Your task to perform on an android device: Go to display settings Image 0: 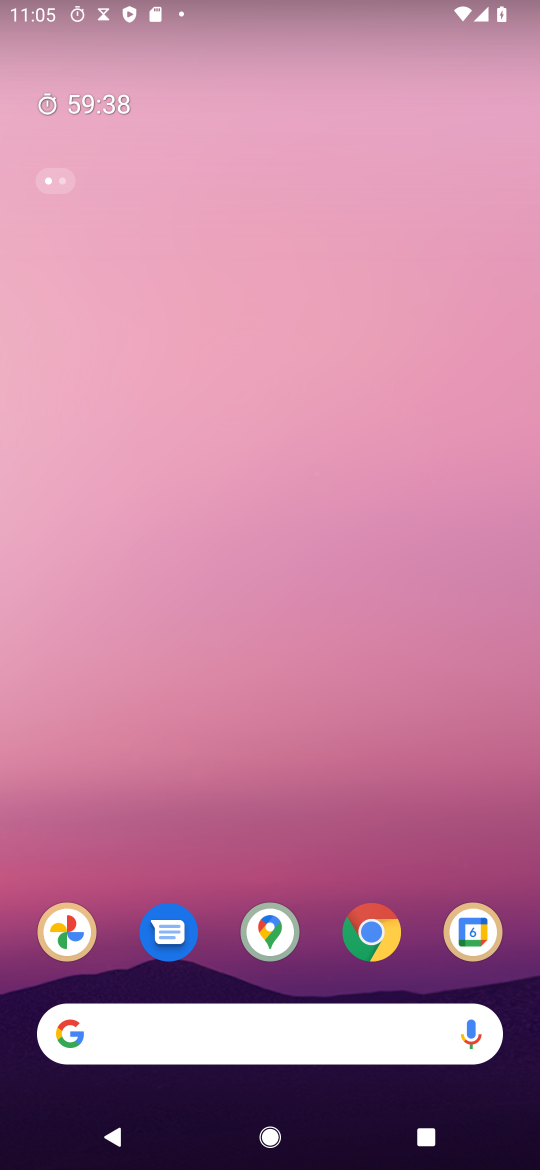
Step 0: drag from (350, 836) to (299, 34)
Your task to perform on an android device: Go to display settings Image 1: 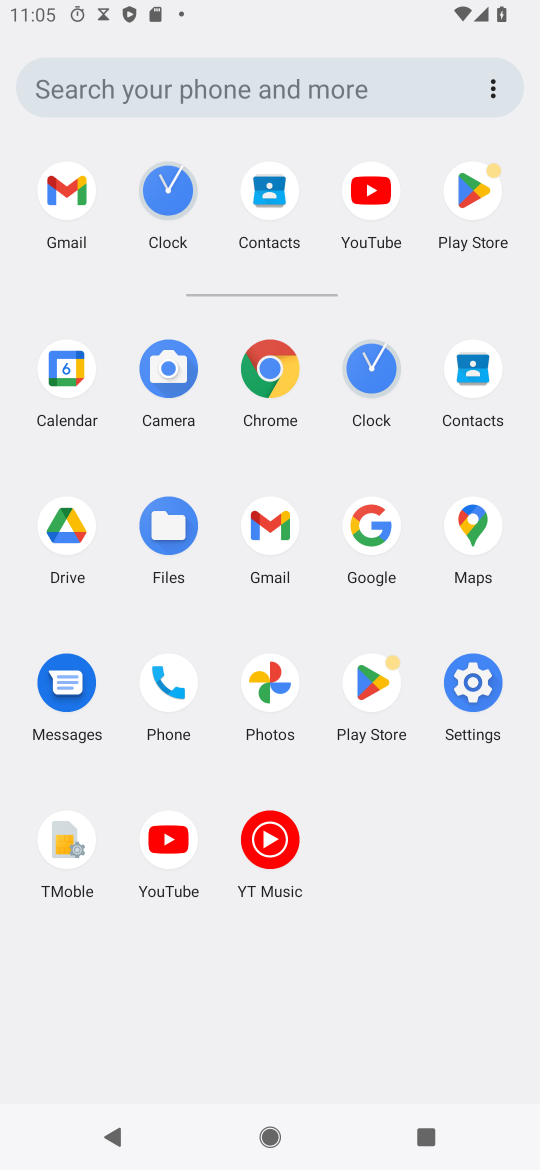
Step 1: click (480, 699)
Your task to perform on an android device: Go to display settings Image 2: 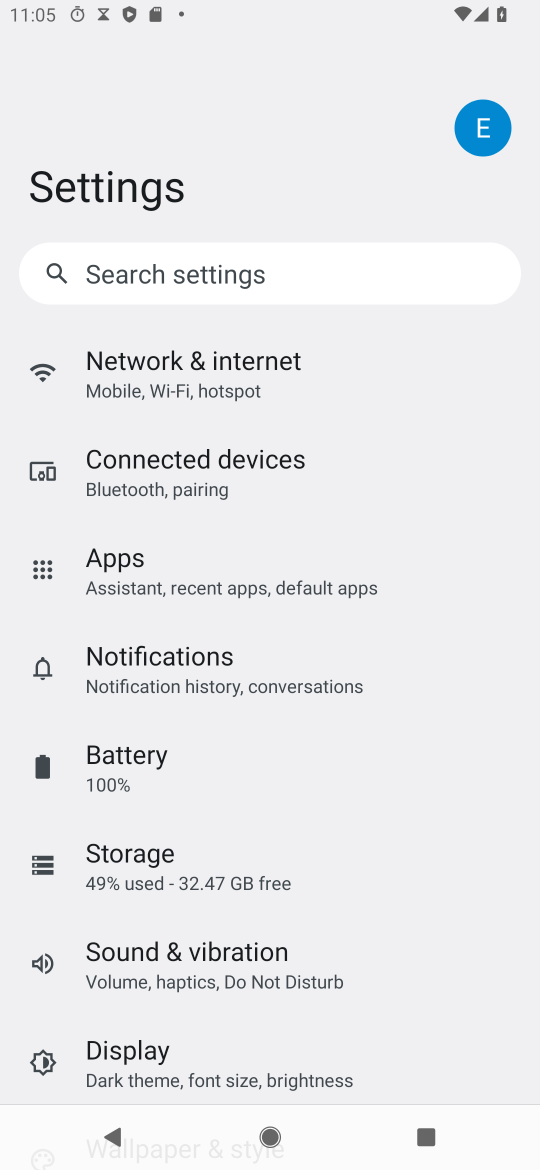
Step 2: click (331, 1069)
Your task to perform on an android device: Go to display settings Image 3: 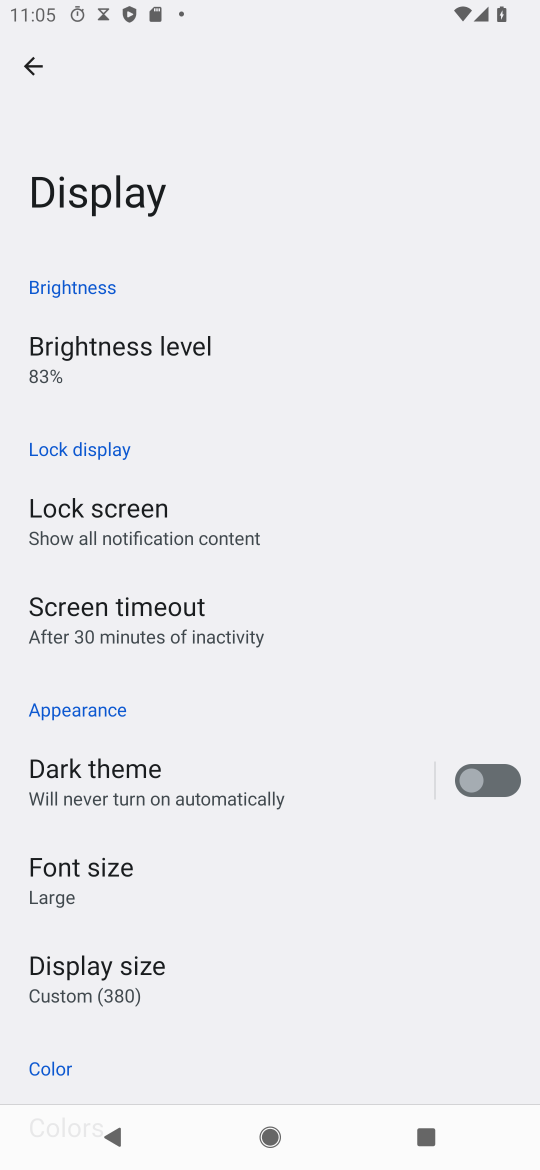
Step 3: task complete